Your task to perform on an android device: Go to CNN.com Image 0: 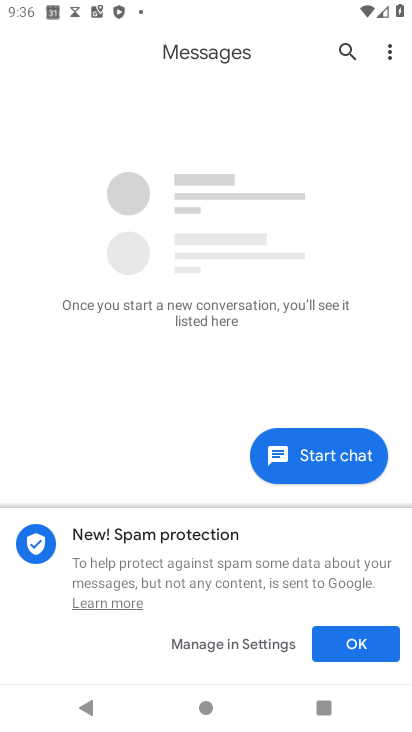
Step 0: press home button
Your task to perform on an android device: Go to CNN.com Image 1: 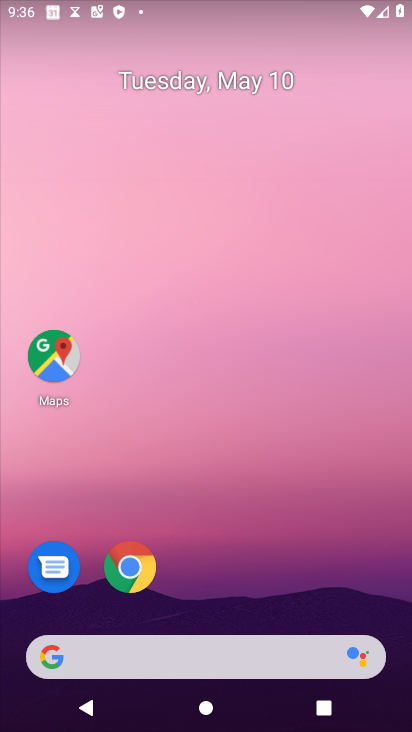
Step 1: click (128, 560)
Your task to perform on an android device: Go to CNN.com Image 2: 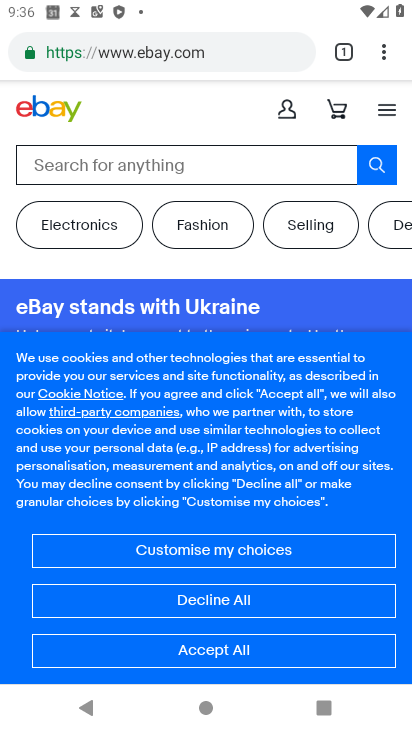
Step 2: click (124, 54)
Your task to perform on an android device: Go to CNN.com Image 3: 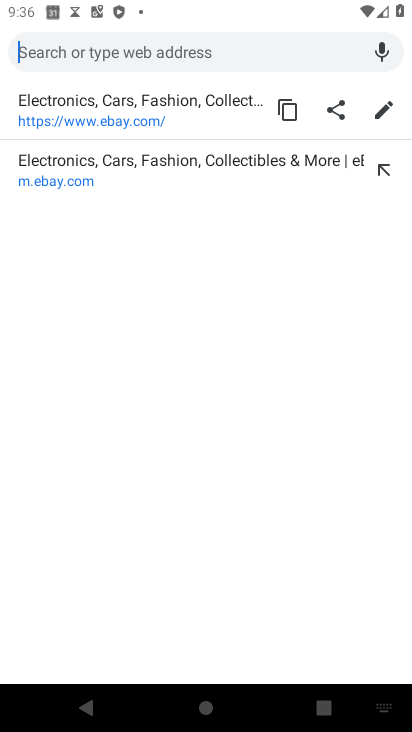
Step 3: type "CNN.com"
Your task to perform on an android device: Go to CNN.com Image 4: 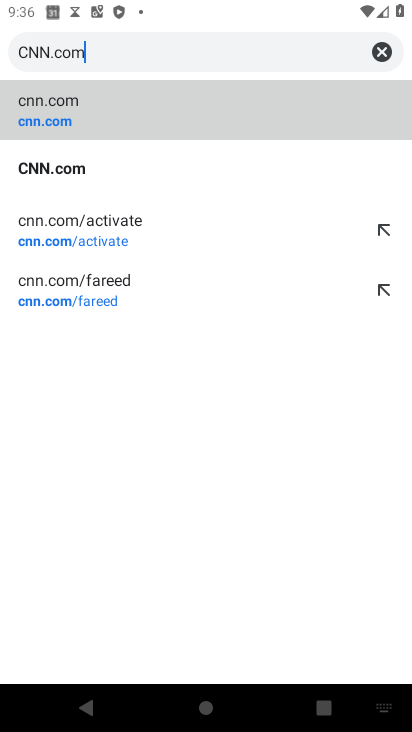
Step 4: type ""
Your task to perform on an android device: Go to CNN.com Image 5: 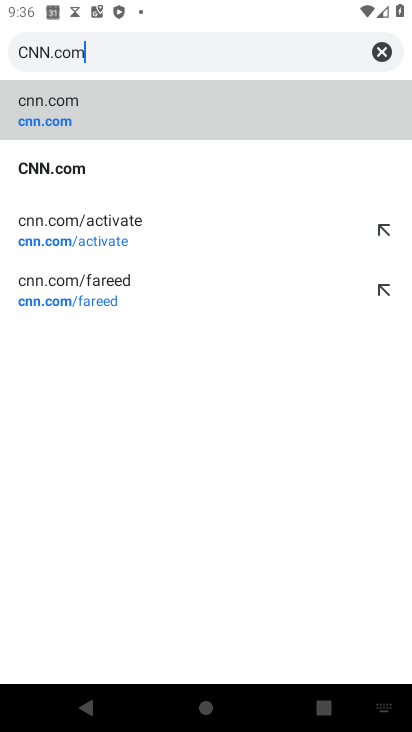
Step 5: click (78, 164)
Your task to perform on an android device: Go to CNN.com Image 6: 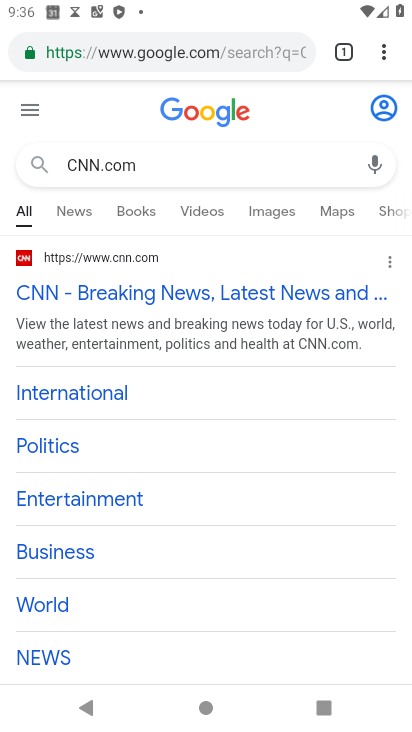
Step 6: click (290, 293)
Your task to perform on an android device: Go to CNN.com Image 7: 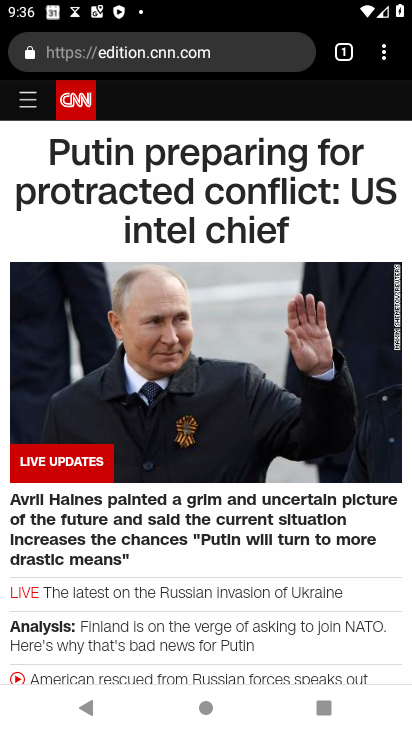
Step 7: task complete